Your task to perform on an android device: Go to accessibility settings Image 0: 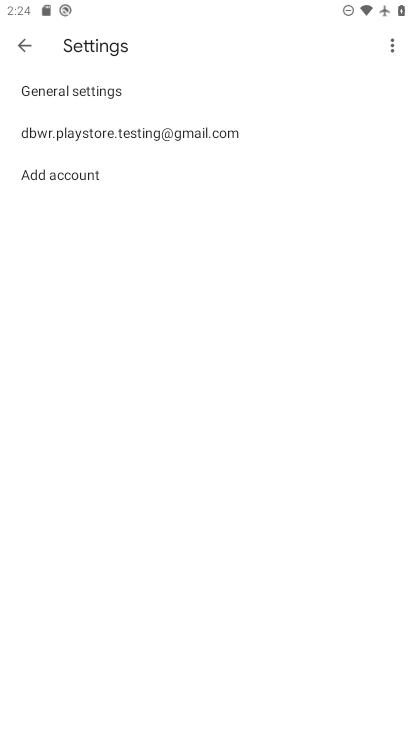
Step 0: press home button
Your task to perform on an android device: Go to accessibility settings Image 1: 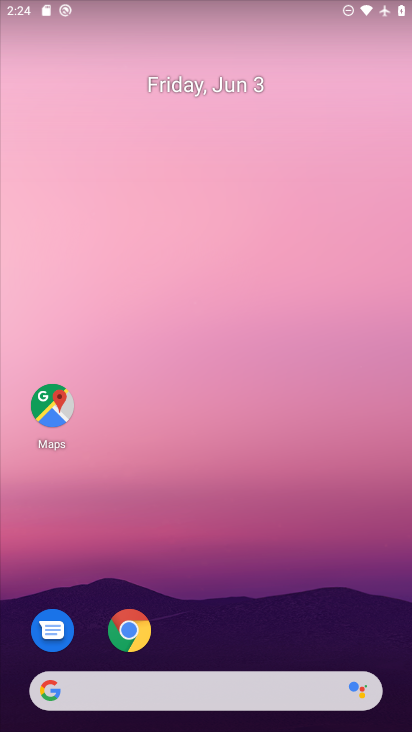
Step 1: drag from (243, 717) to (174, 133)
Your task to perform on an android device: Go to accessibility settings Image 2: 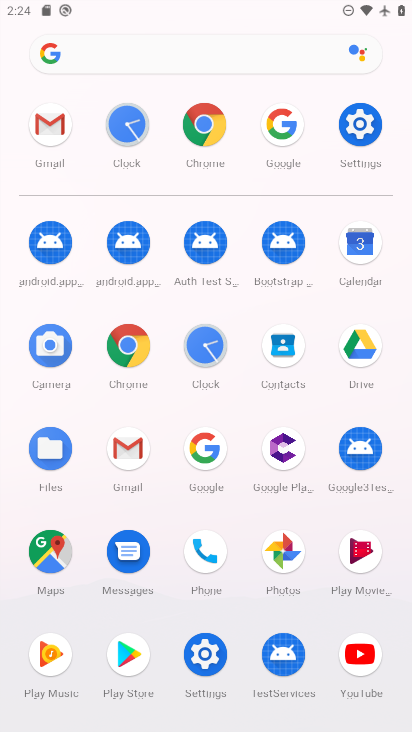
Step 2: click (365, 126)
Your task to perform on an android device: Go to accessibility settings Image 3: 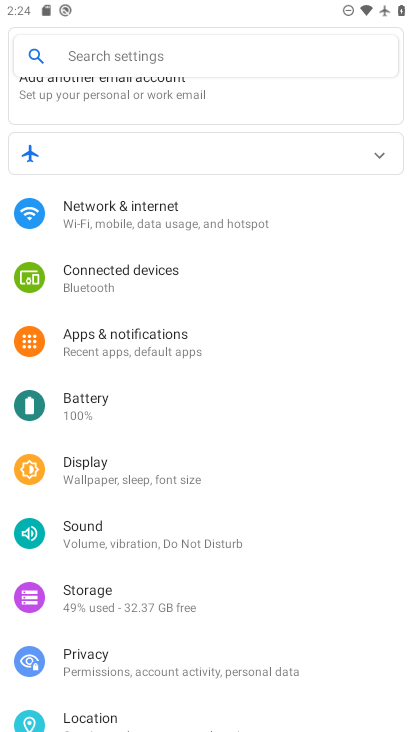
Step 3: drag from (198, 685) to (153, 278)
Your task to perform on an android device: Go to accessibility settings Image 4: 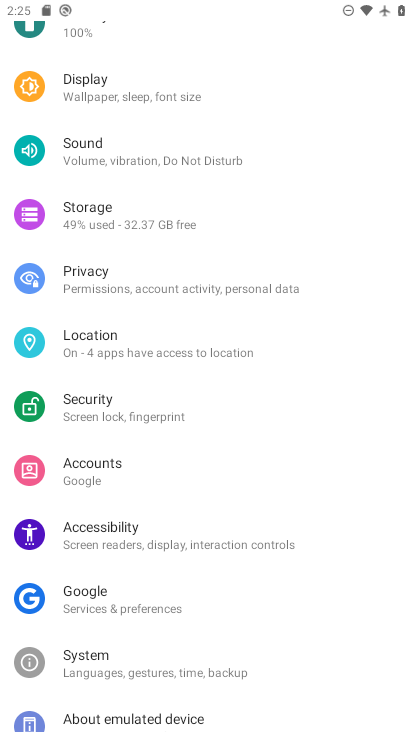
Step 4: click (97, 529)
Your task to perform on an android device: Go to accessibility settings Image 5: 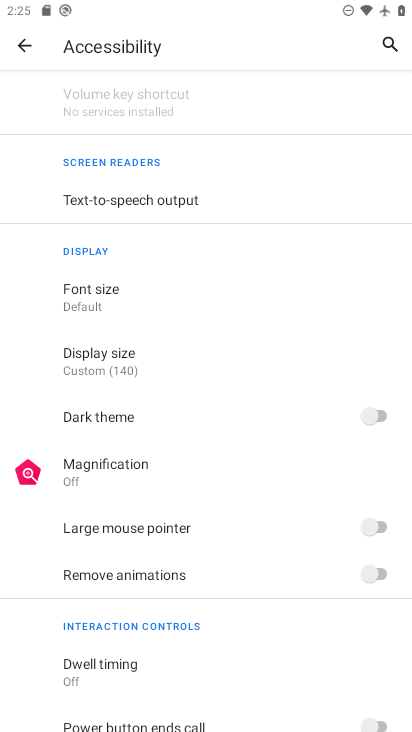
Step 5: task complete